Your task to perform on an android device: Search for seafood restaurants on Google Maps Image 0: 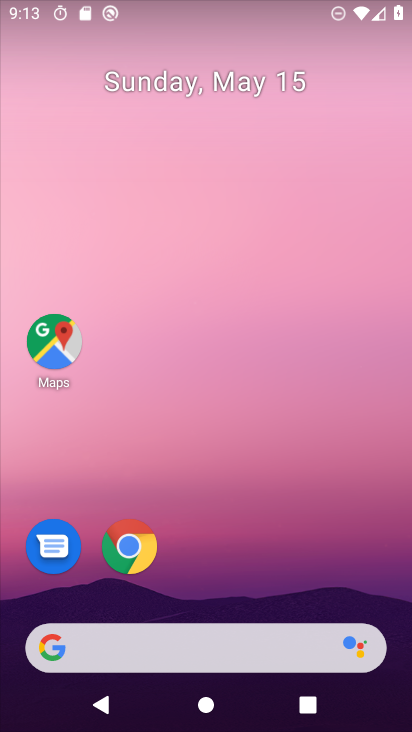
Step 0: click (49, 333)
Your task to perform on an android device: Search for seafood restaurants on Google Maps Image 1: 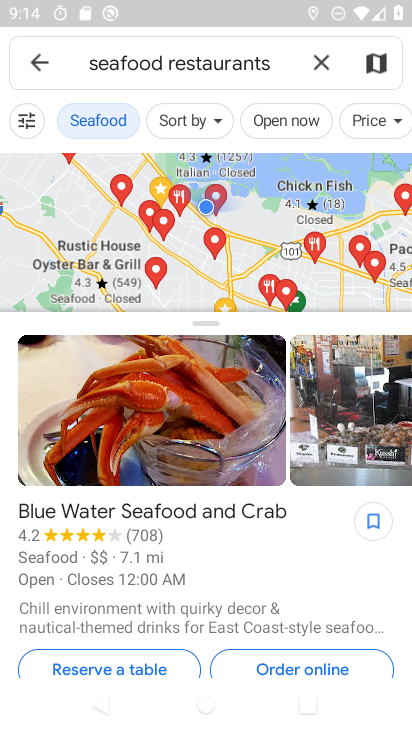
Step 1: task complete